Your task to perform on an android device: see tabs open on other devices in the chrome app Image 0: 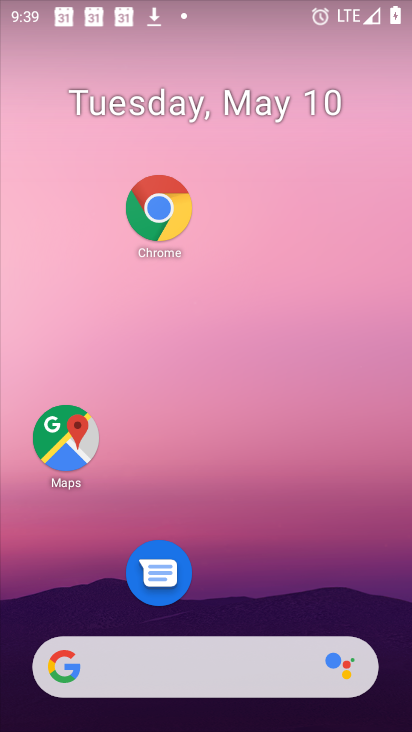
Step 0: drag from (336, 695) to (268, 60)
Your task to perform on an android device: see tabs open on other devices in the chrome app Image 1: 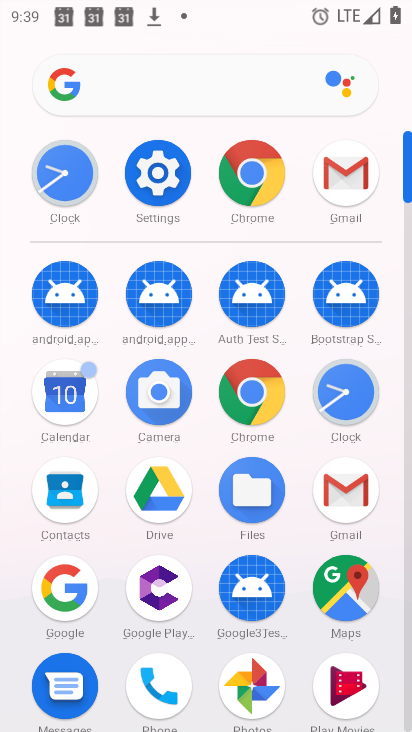
Step 1: click (251, 395)
Your task to perform on an android device: see tabs open on other devices in the chrome app Image 2: 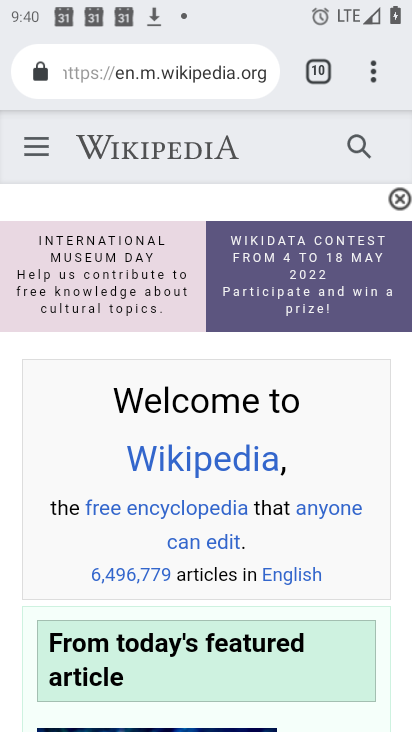
Step 2: click (324, 76)
Your task to perform on an android device: see tabs open on other devices in the chrome app Image 3: 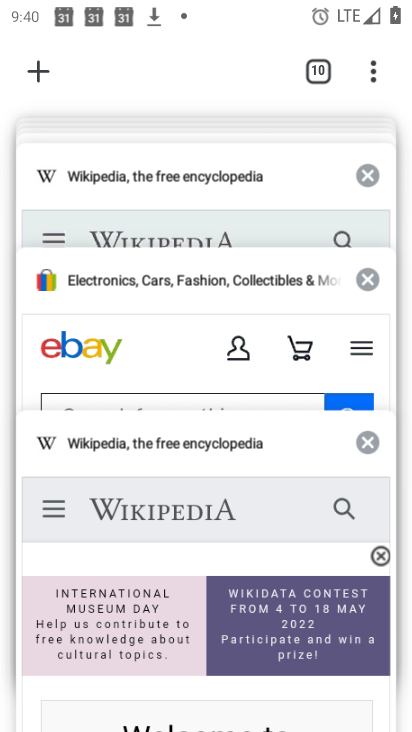
Step 3: click (28, 81)
Your task to perform on an android device: see tabs open on other devices in the chrome app Image 4: 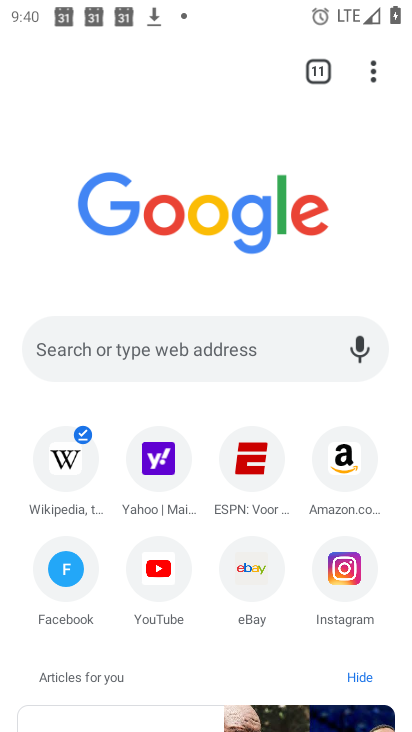
Step 4: task complete